Your task to perform on an android device: Open wifi settings Image 0: 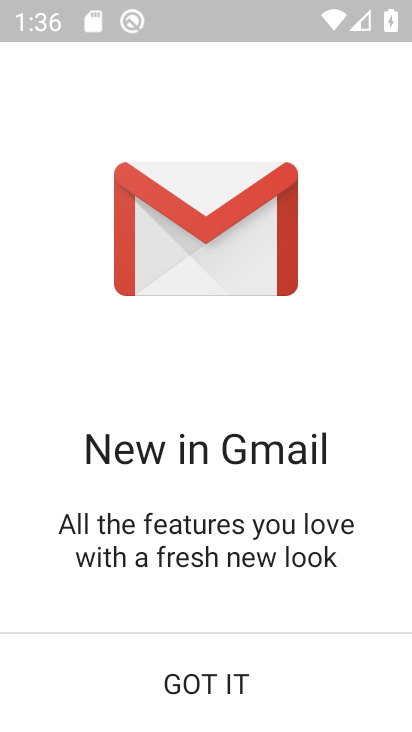
Step 0: click (208, 685)
Your task to perform on an android device: Open wifi settings Image 1: 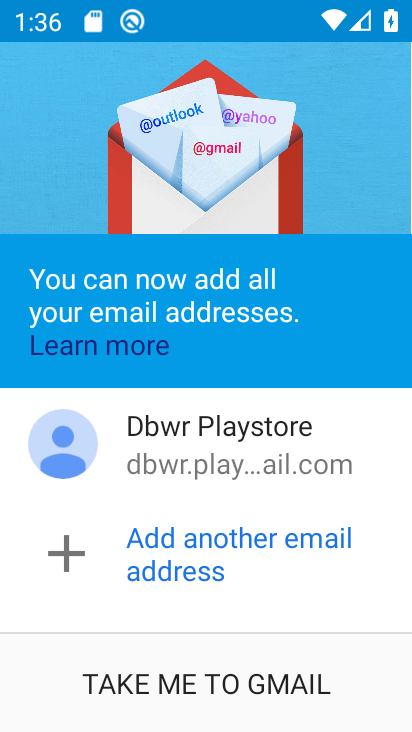
Step 1: click (186, 691)
Your task to perform on an android device: Open wifi settings Image 2: 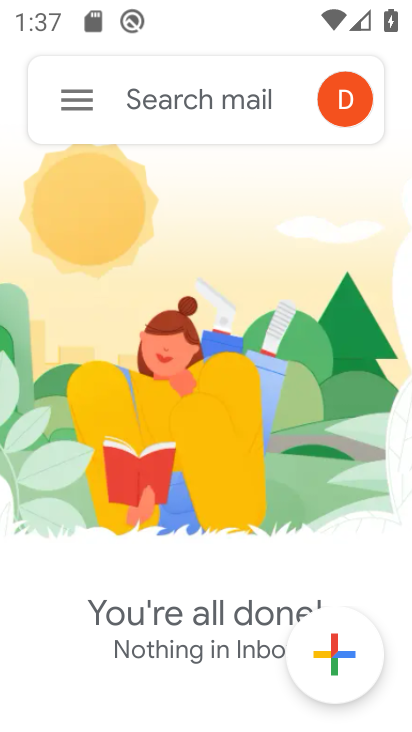
Step 2: press home button
Your task to perform on an android device: Open wifi settings Image 3: 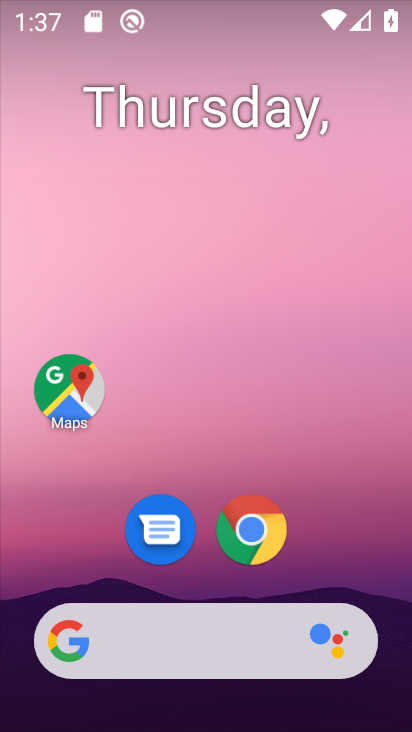
Step 3: drag from (297, 522) to (348, 67)
Your task to perform on an android device: Open wifi settings Image 4: 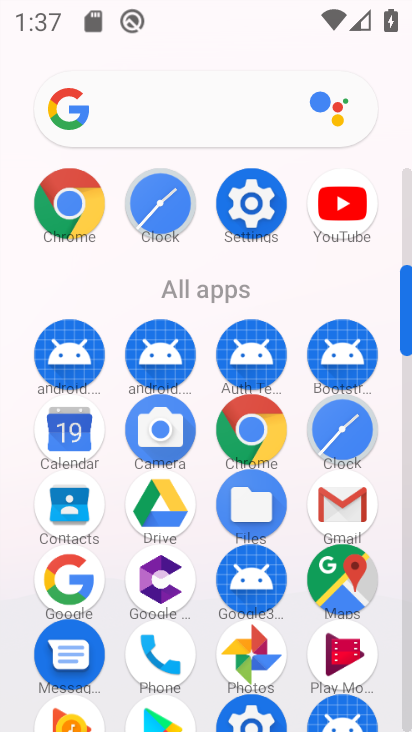
Step 4: click (256, 204)
Your task to perform on an android device: Open wifi settings Image 5: 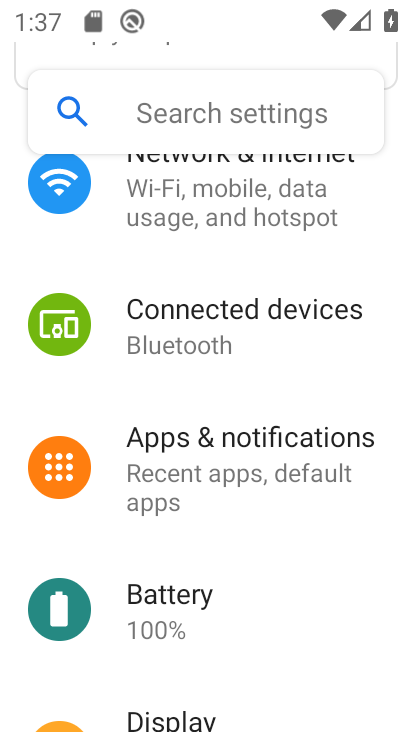
Step 5: click (224, 213)
Your task to perform on an android device: Open wifi settings Image 6: 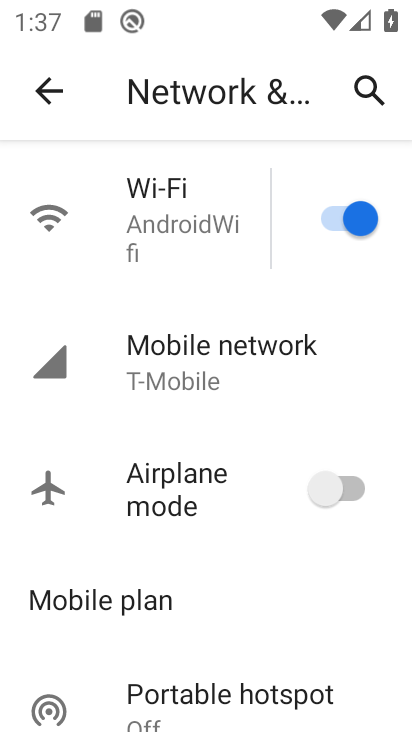
Step 6: click (195, 220)
Your task to perform on an android device: Open wifi settings Image 7: 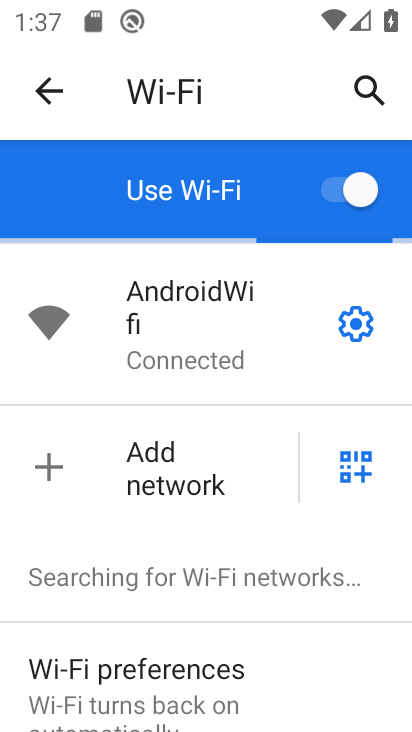
Step 7: task complete